Your task to perform on an android device: Go to notification settings Image 0: 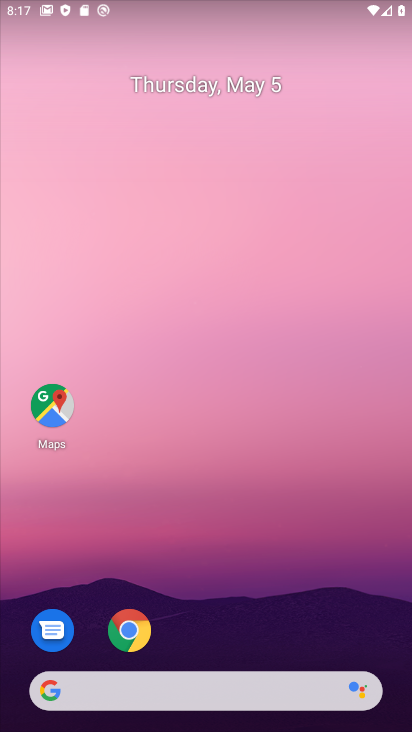
Step 0: drag from (173, 605) to (241, 163)
Your task to perform on an android device: Go to notification settings Image 1: 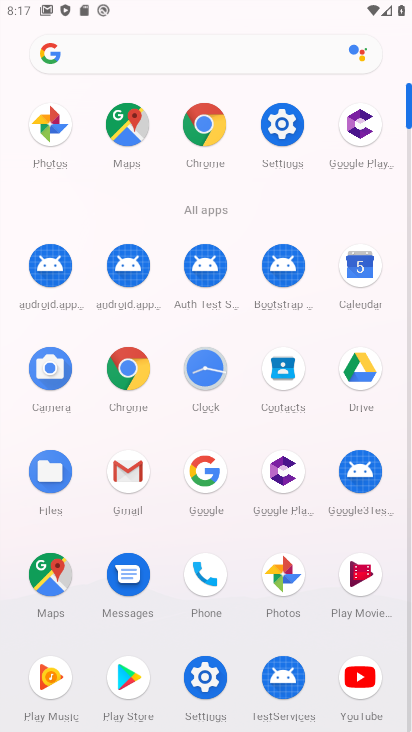
Step 1: click (286, 122)
Your task to perform on an android device: Go to notification settings Image 2: 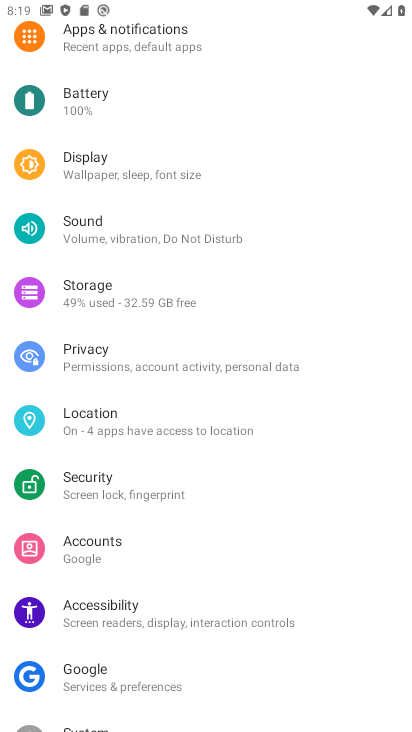
Step 2: click (176, 52)
Your task to perform on an android device: Go to notification settings Image 3: 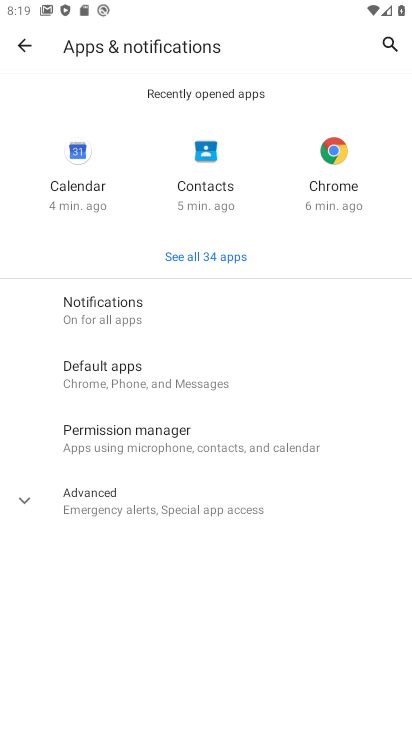
Step 3: task complete